Your task to perform on an android device: set default search engine in the chrome app Image 0: 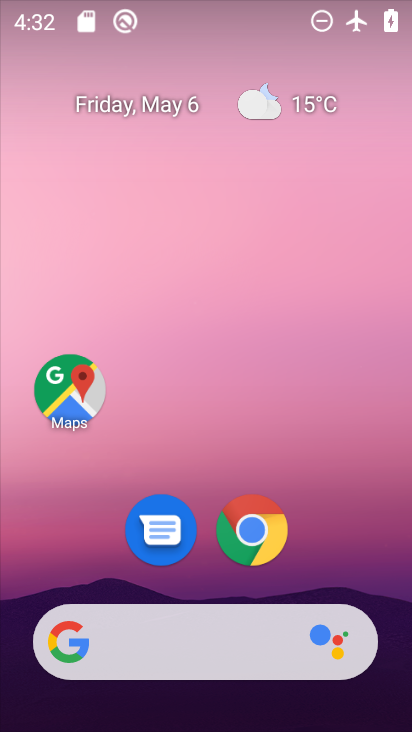
Step 0: drag from (357, 547) to (310, 93)
Your task to perform on an android device: set default search engine in the chrome app Image 1: 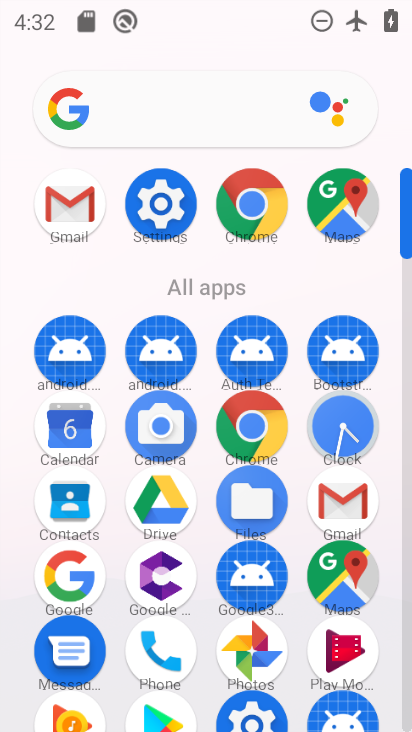
Step 1: click (252, 203)
Your task to perform on an android device: set default search engine in the chrome app Image 2: 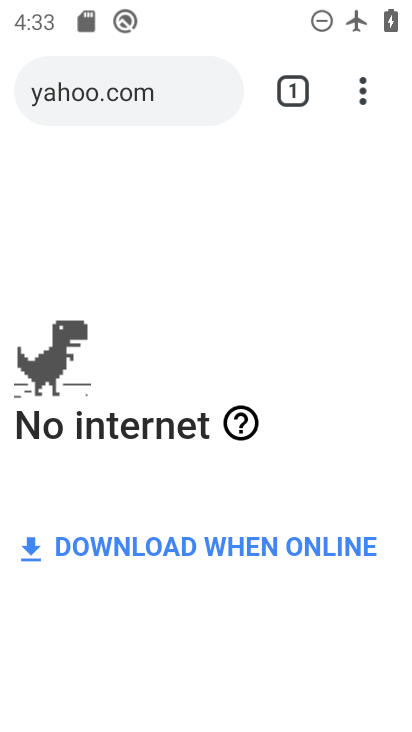
Step 2: drag from (359, 111) to (90, 559)
Your task to perform on an android device: set default search engine in the chrome app Image 3: 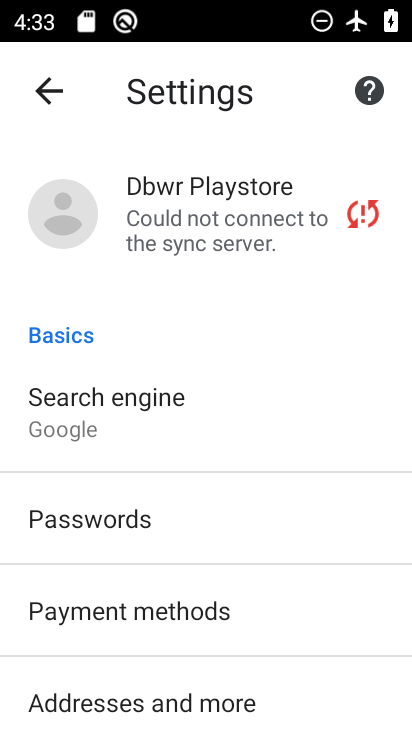
Step 3: click (67, 413)
Your task to perform on an android device: set default search engine in the chrome app Image 4: 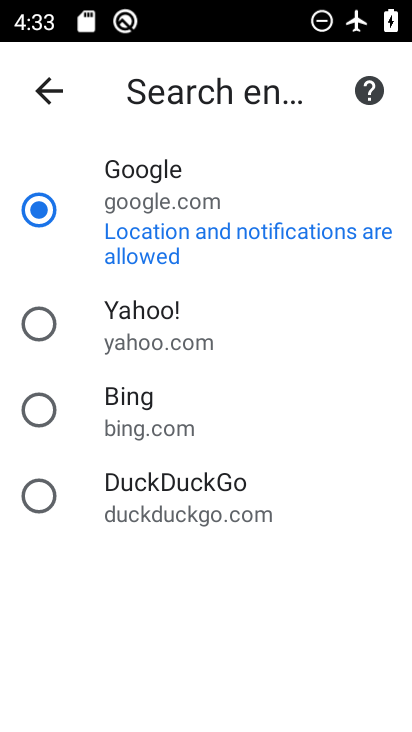
Step 4: task complete